Your task to perform on an android device: Go to Google maps Image 0: 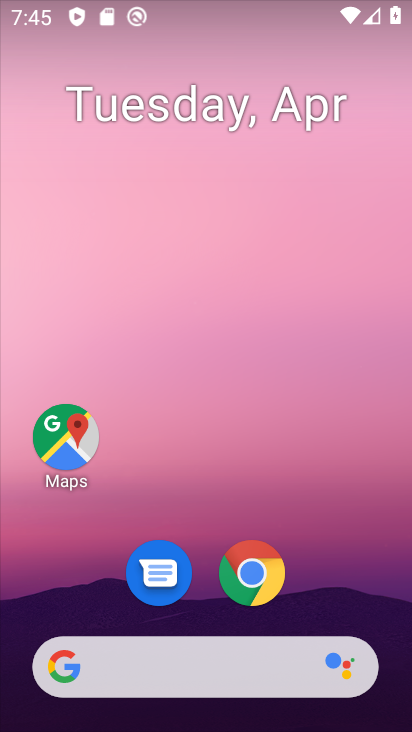
Step 0: click (74, 431)
Your task to perform on an android device: Go to Google maps Image 1: 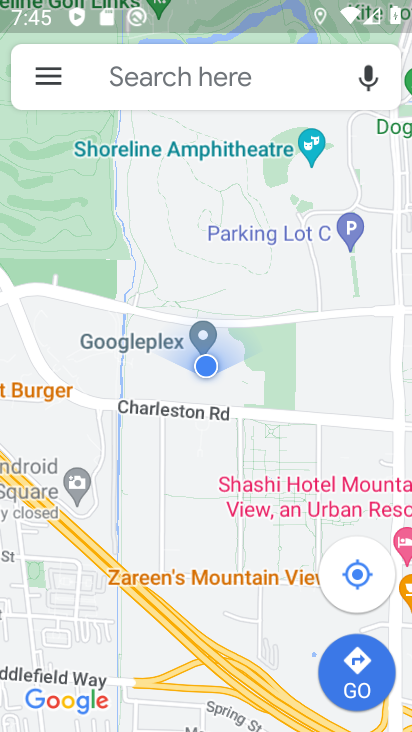
Step 1: task complete